Your task to perform on an android device: add a contact in the contacts app Image 0: 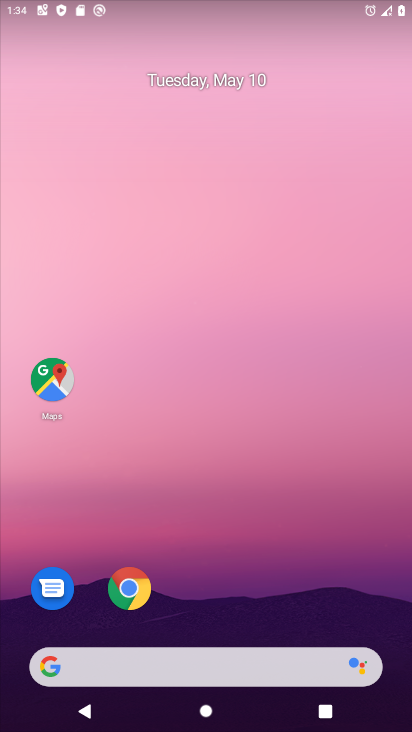
Step 0: drag from (199, 637) to (215, 175)
Your task to perform on an android device: add a contact in the contacts app Image 1: 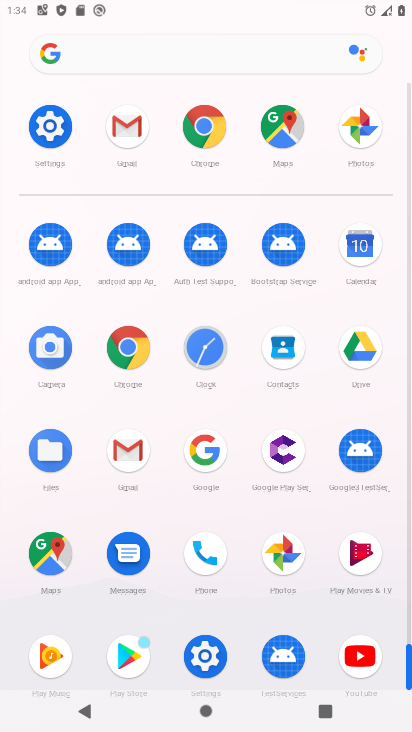
Step 1: click (189, 557)
Your task to perform on an android device: add a contact in the contacts app Image 2: 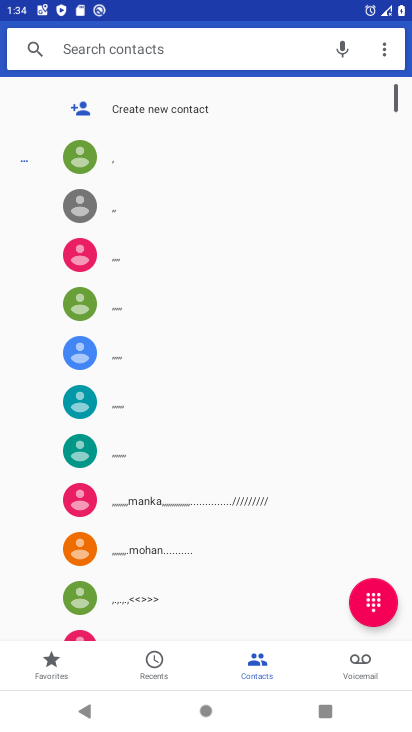
Step 2: click (142, 103)
Your task to perform on an android device: add a contact in the contacts app Image 3: 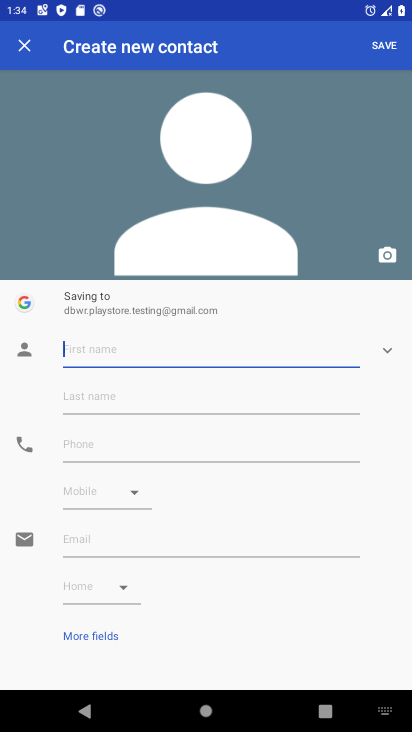
Step 3: click (182, 340)
Your task to perform on an android device: add a contact in the contacts app Image 4: 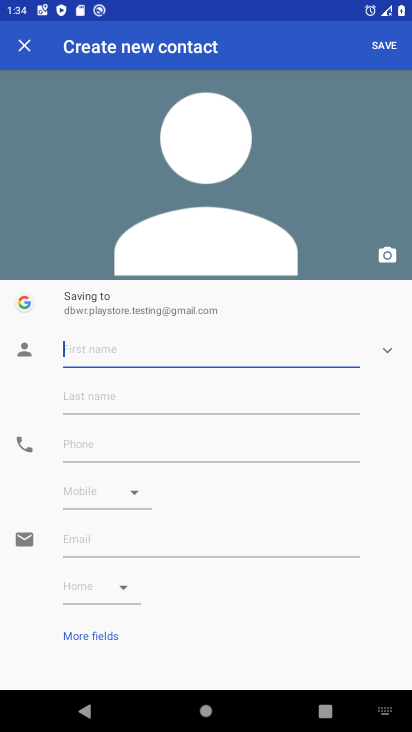
Step 4: type "hhhhhhhhhhi"
Your task to perform on an android device: add a contact in the contacts app Image 5: 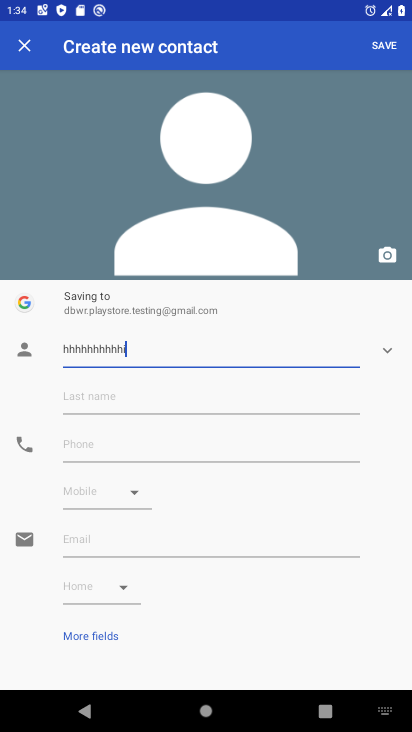
Step 5: click (79, 444)
Your task to perform on an android device: add a contact in the contacts app Image 6: 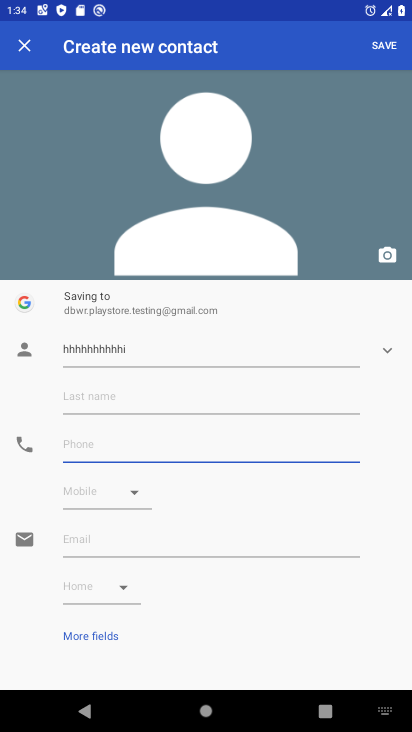
Step 6: type "999999999999999990"
Your task to perform on an android device: add a contact in the contacts app Image 7: 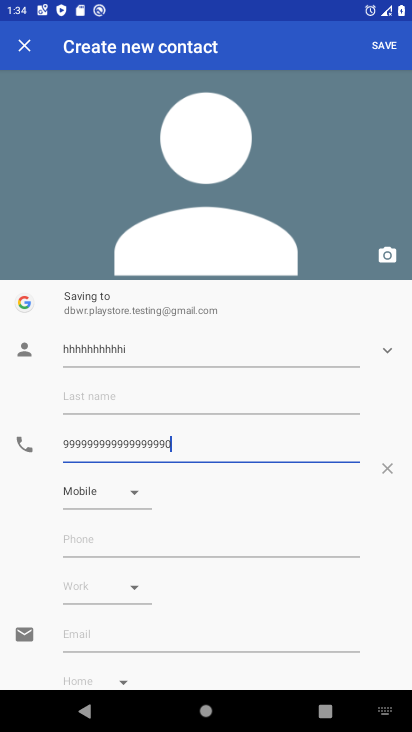
Step 7: click (389, 36)
Your task to perform on an android device: add a contact in the contacts app Image 8: 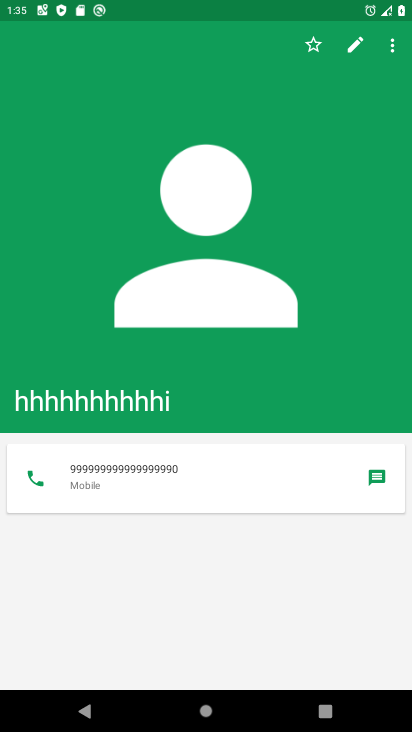
Step 8: task complete